Your task to perform on an android device: allow notifications from all sites in the chrome app Image 0: 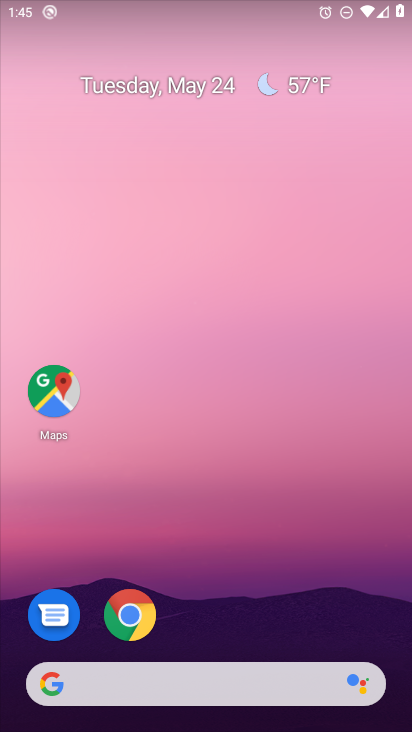
Step 0: click (141, 625)
Your task to perform on an android device: allow notifications from all sites in the chrome app Image 1: 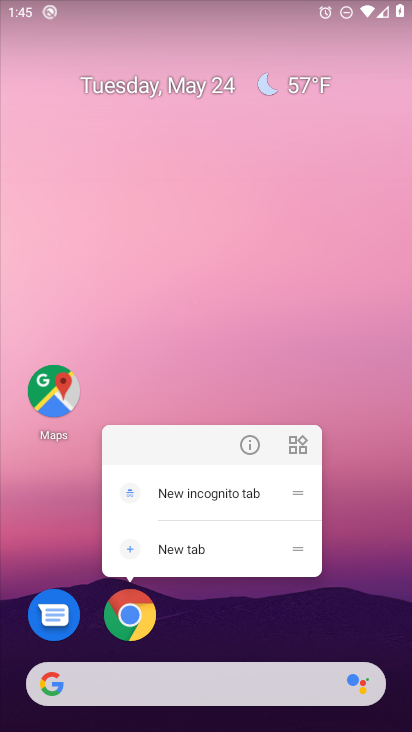
Step 1: click (136, 616)
Your task to perform on an android device: allow notifications from all sites in the chrome app Image 2: 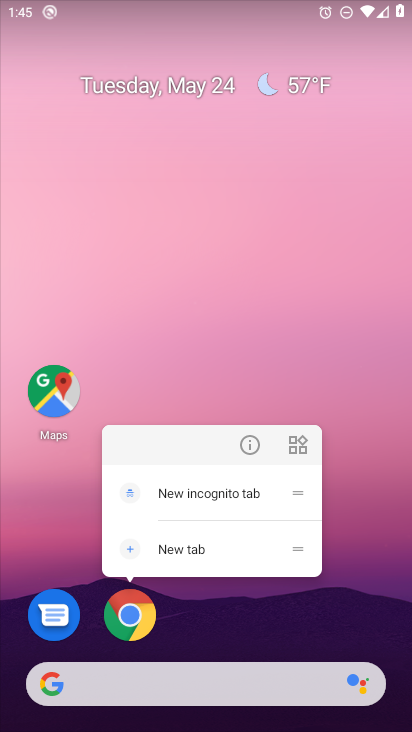
Step 2: click (119, 617)
Your task to perform on an android device: allow notifications from all sites in the chrome app Image 3: 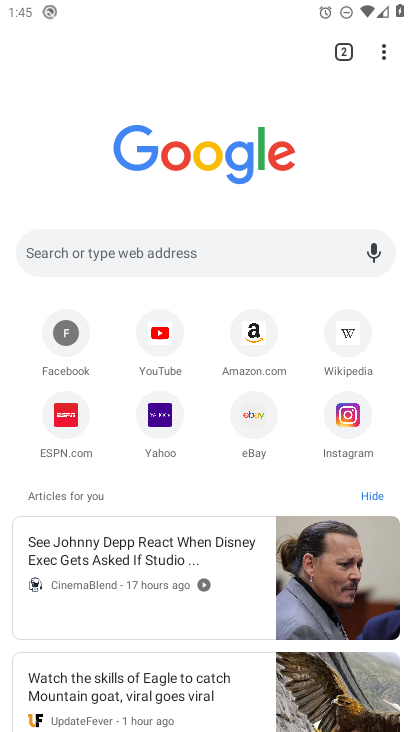
Step 3: click (385, 43)
Your task to perform on an android device: allow notifications from all sites in the chrome app Image 4: 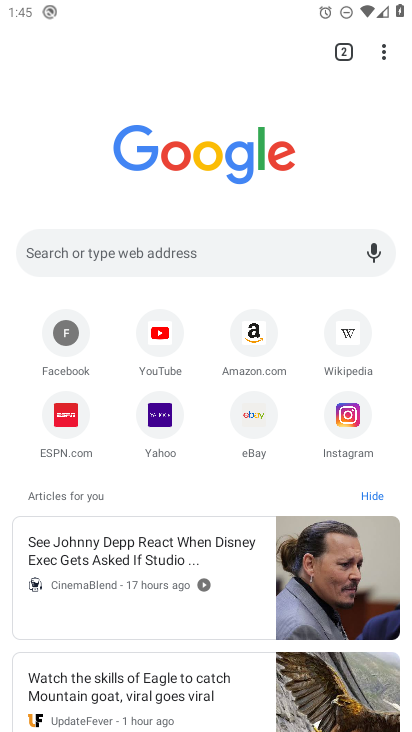
Step 4: click (385, 44)
Your task to perform on an android device: allow notifications from all sites in the chrome app Image 5: 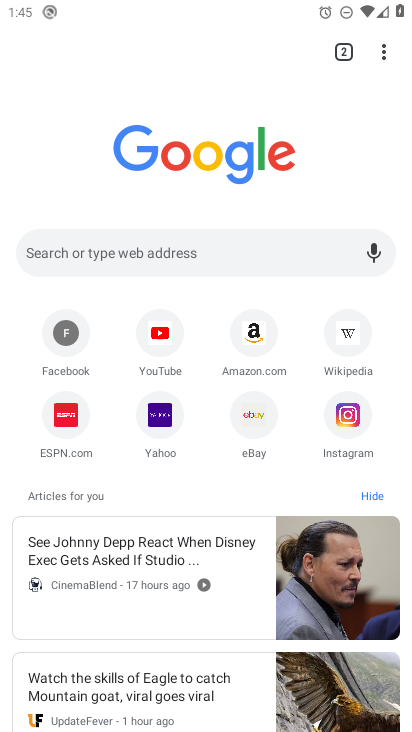
Step 5: click (380, 66)
Your task to perform on an android device: allow notifications from all sites in the chrome app Image 6: 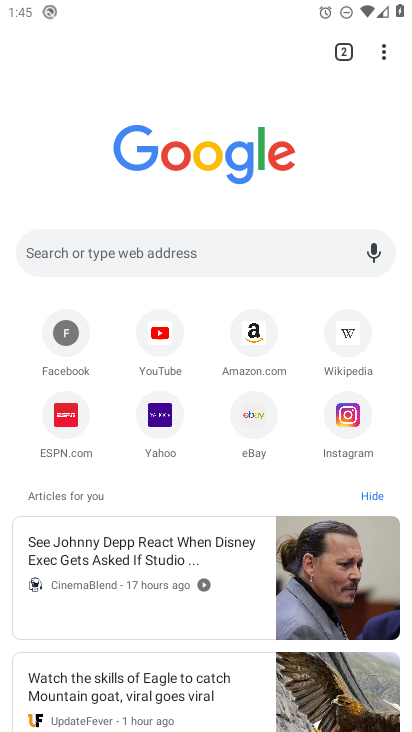
Step 6: click (380, 51)
Your task to perform on an android device: allow notifications from all sites in the chrome app Image 7: 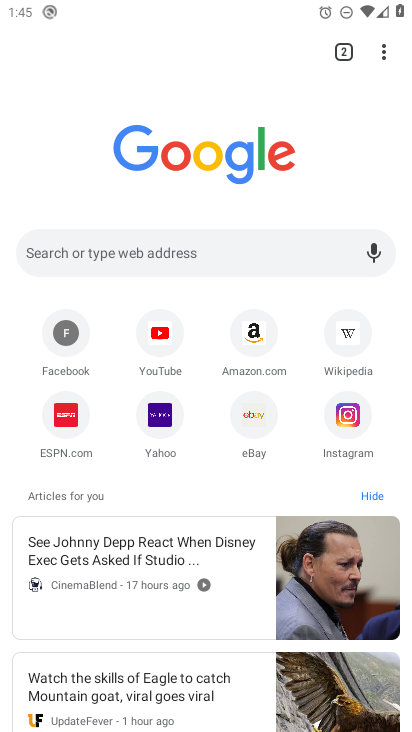
Step 7: click (380, 51)
Your task to perform on an android device: allow notifications from all sites in the chrome app Image 8: 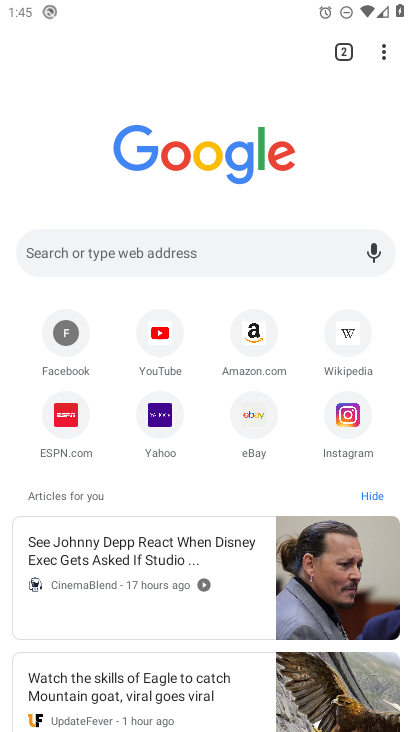
Step 8: click (390, 50)
Your task to perform on an android device: allow notifications from all sites in the chrome app Image 9: 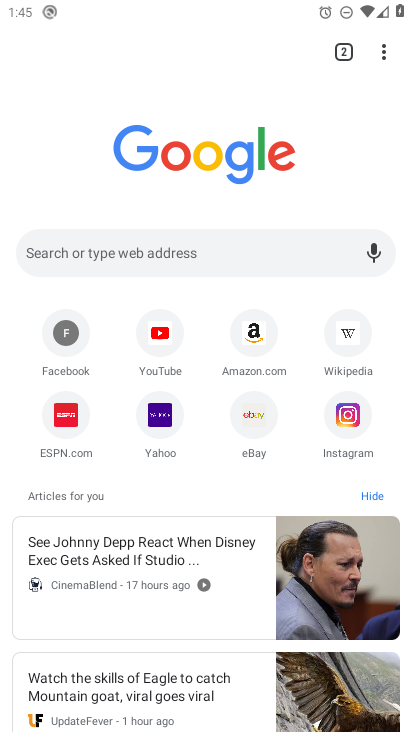
Step 9: click (387, 60)
Your task to perform on an android device: allow notifications from all sites in the chrome app Image 10: 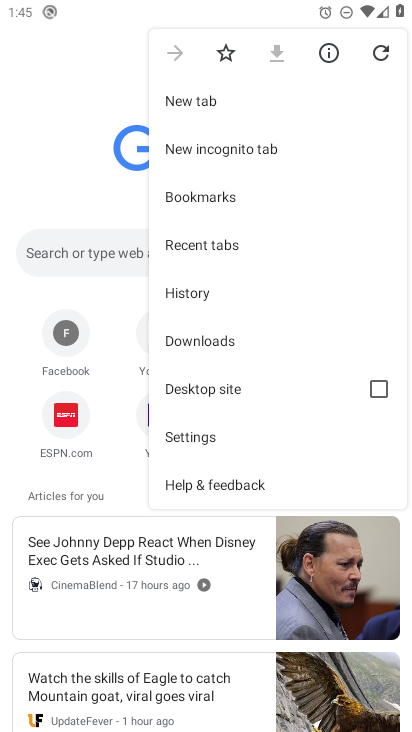
Step 10: click (181, 435)
Your task to perform on an android device: allow notifications from all sites in the chrome app Image 11: 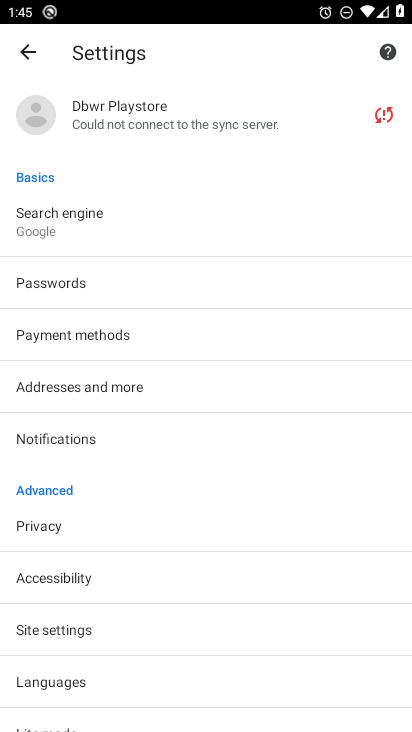
Step 11: click (51, 624)
Your task to perform on an android device: allow notifications from all sites in the chrome app Image 12: 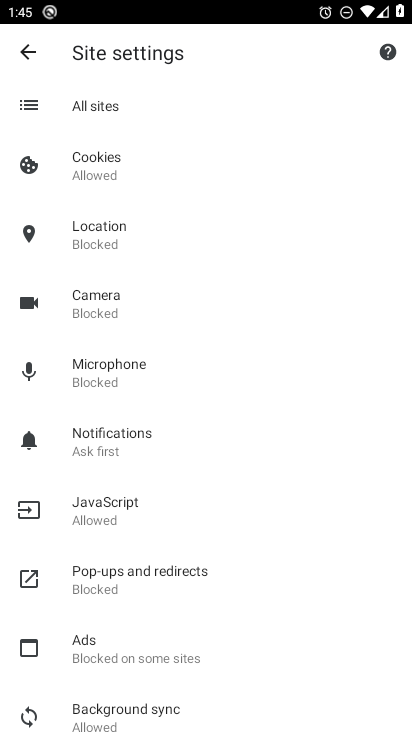
Step 12: click (89, 443)
Your task to perform on an android device: allow notifications from all sites in the chrome app Image 13: 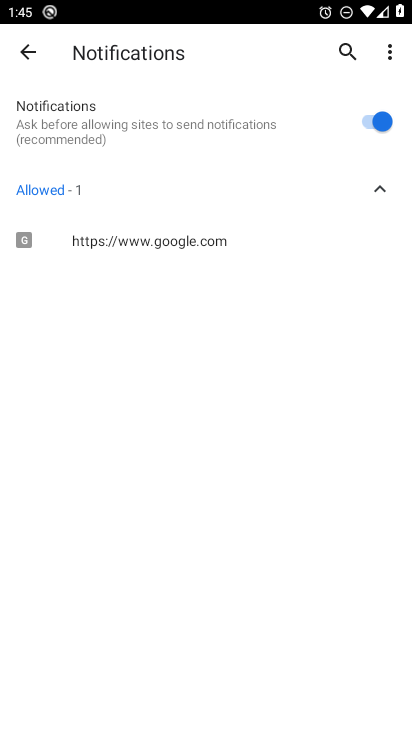
Step 13: task complete